Your task to perform on an android device: Toggle the flashlight Image 0: 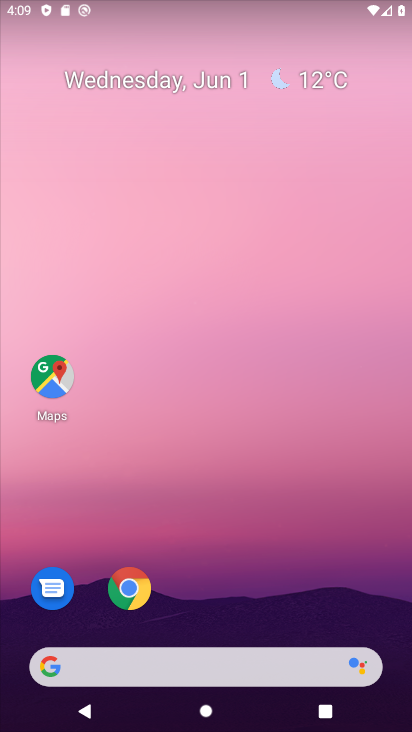
Step 0: drag from (299, 574) to (357, 24)
Your task to perform on an android device: Toggle the flashlight Image 1: 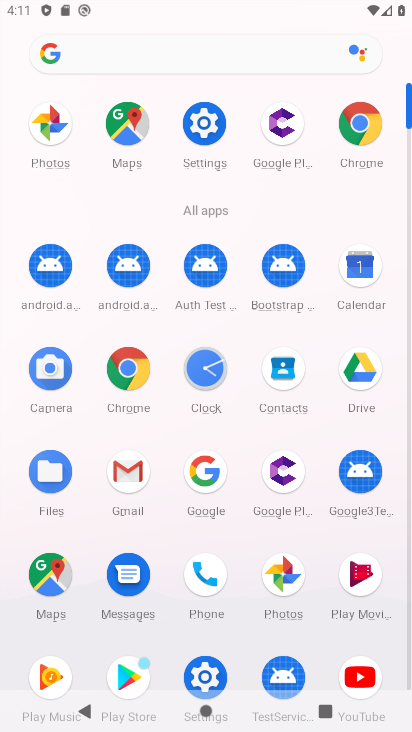
Step 1: click (205, 125)
Your task to perform on an android device: Toggle the flashlight Image 2: 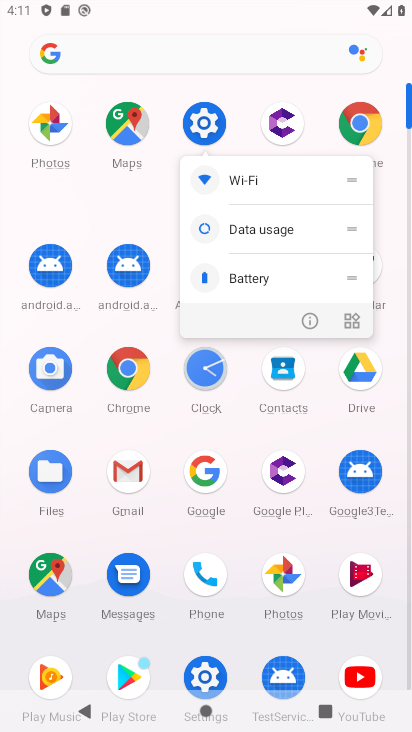
Step 2: click (205, 125)
Your task to perform on an android device: Toggle the flashlight Image 3: 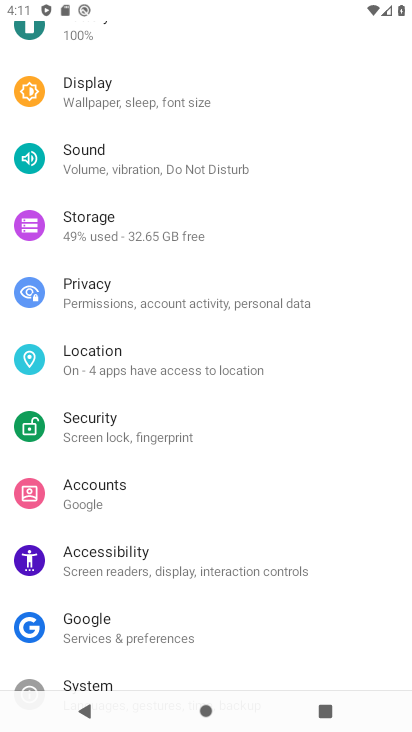
Step 3: task complete